Your task to perform on an android device: move a message to another label in the gmail app Image 0: 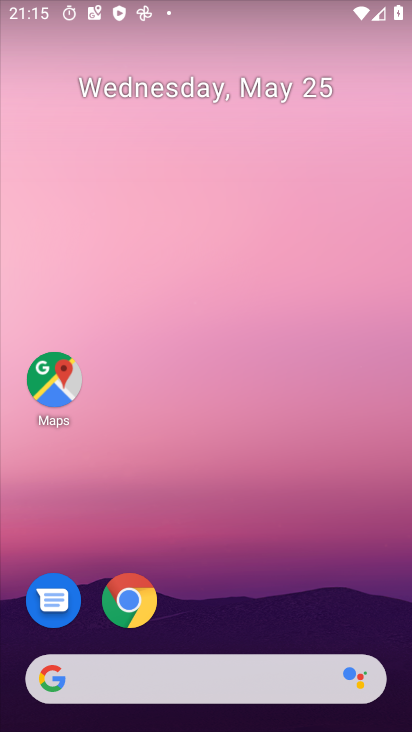
Step 0: drag from (317, 577) to (292, 195)
Your task to perform on an android device: move a message to another label in the gmail app Image 1: 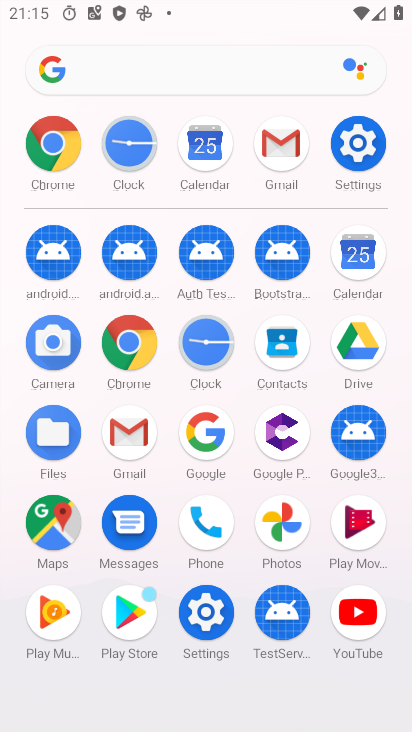
Step 1: click (126, 421)
Your task to perform on an android device: move a message to another label in the gmail app Image 2: 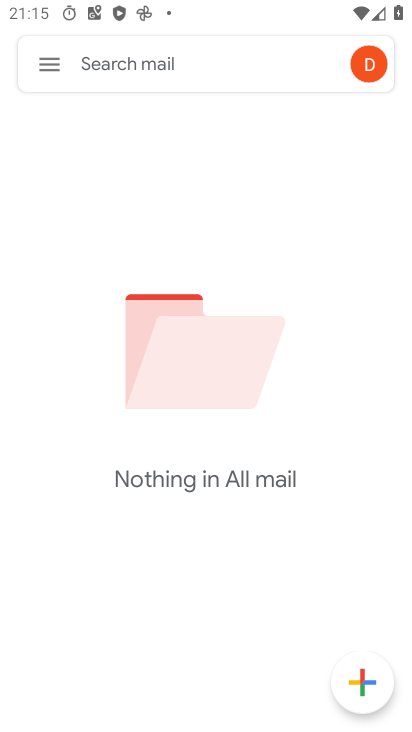
Step 2: task complete